Your task to perform on an android device: Open eBay Image 0: 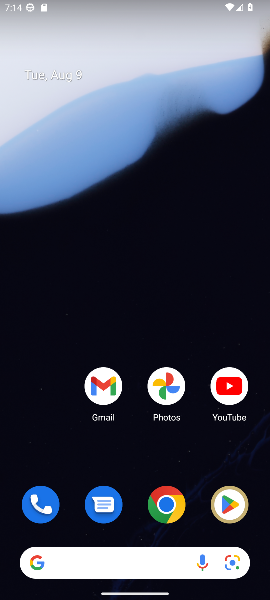
Step 0: press home button
Your task to perform on an android device: Open eBay Image 1: 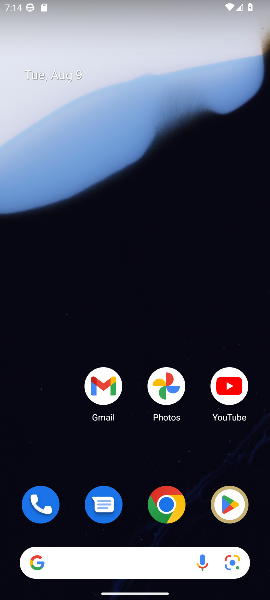
Step 1: drag from (222, 508) to (152, 180)
Your task to perform on an android device: Open eBay Image 2: 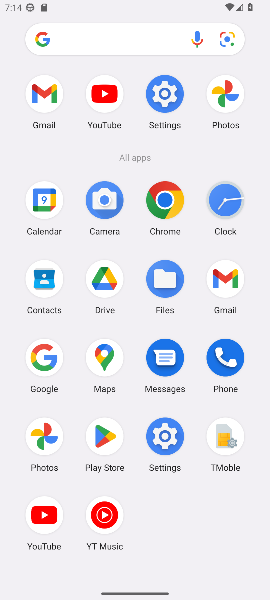
Step 2: click (154, 225)
Your task to perform on an android device: Open eBay Image 3: 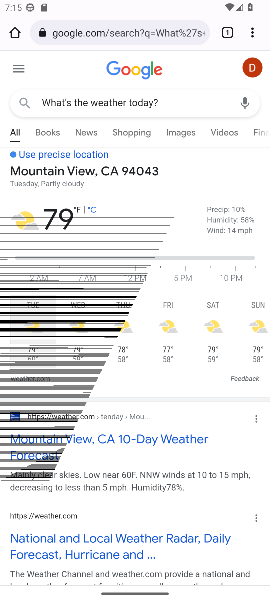
Step 3: click (103, 35)
Your task to perform on an android device: Open eBay Image 4: 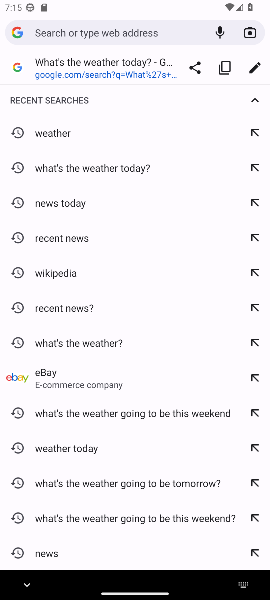
Step 4: type "eBay"
Your task to perform on an android device: Open eBay Image 5: 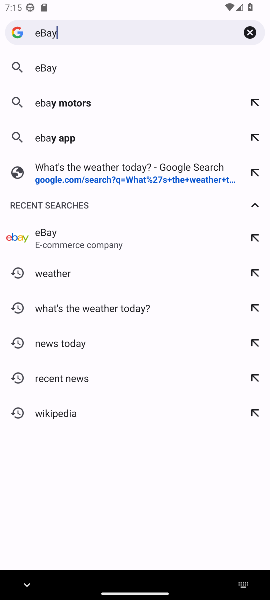
Step 5: type ""
Your task to perform on an android device: Open eBay Image 6: 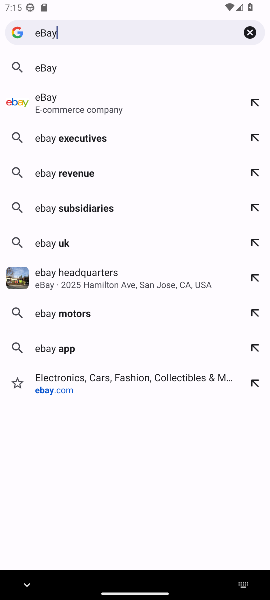
Step 6: click (40, 386)
Your task to perform on an android device: Open eBay Image 7: 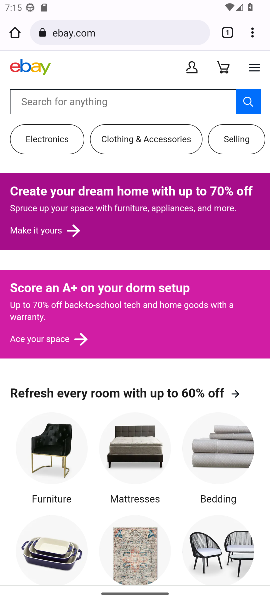
Step 7: task complete